Your task to perform on an android device: turn on notifications settings in the gmail app Image 0: 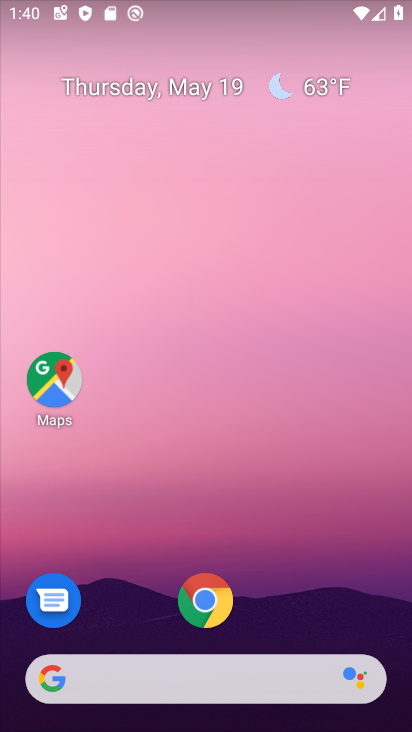
Step 0: drag from (308, 621) to (290, 87)
Your task to perform on an android device: turn on notifications settings in the gmail app Image 1: 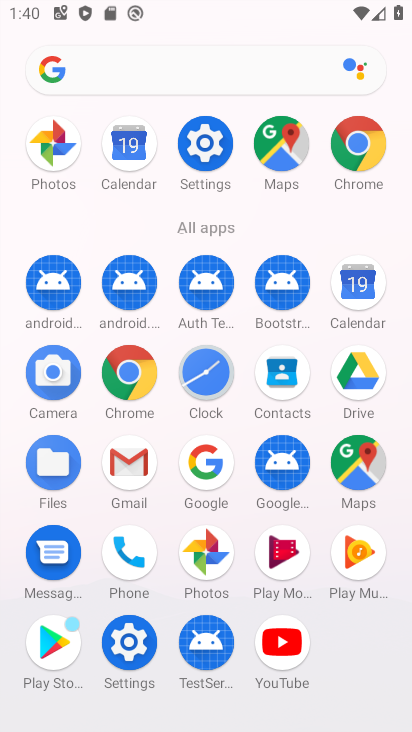
Step 1: click (131, 471)
Your task to perform on an android device: turn on notifications settings in the gmail app Image 2: 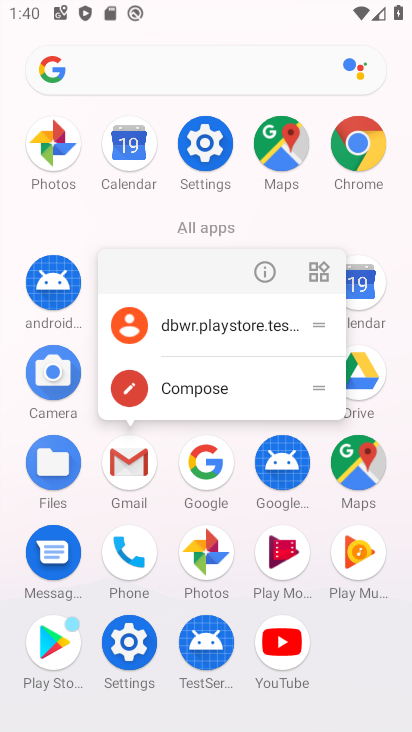
Step 2: click (265, 280)
Your task to perform on an android device: turn on notifications settings in the gmail app Image 3: 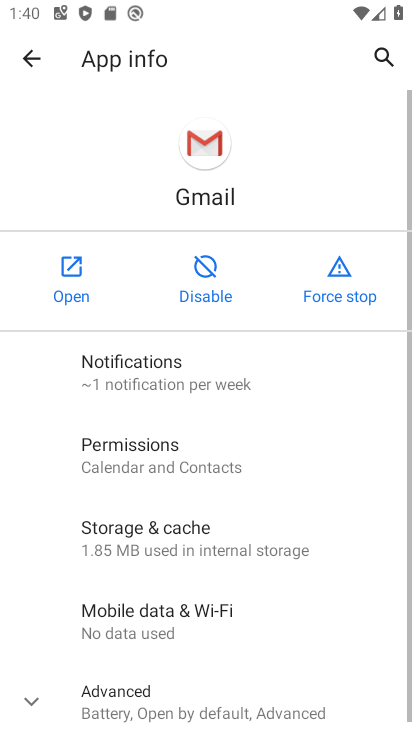
Step 3: click (157, 378)
Your task to perform on an android device: turn on notifications settings in the gmail app Image 4: 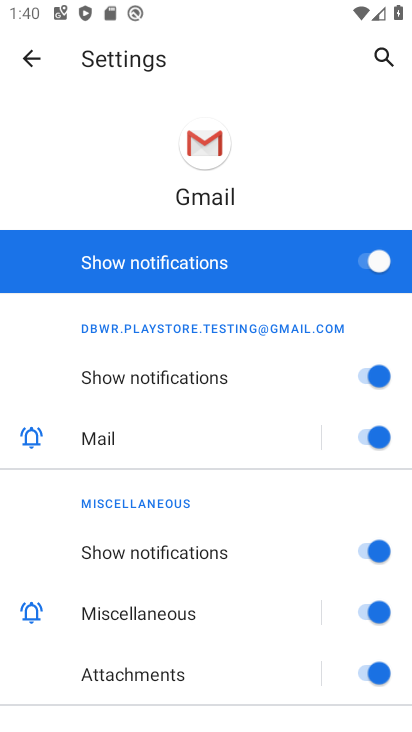
Step 4: task complete